Your task to perform on an android device: Add "razer deathadder" to the cart on newegg.com, then select checkout. Image 0: 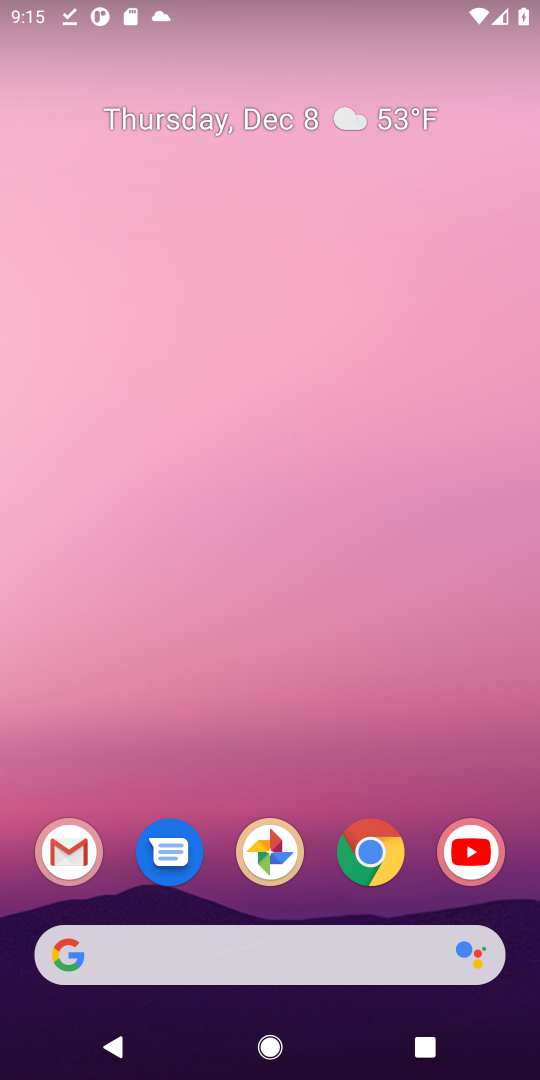
Step 0: click (272, 944)
Your task to perform on an android device: Add "razer deathadder" to the cart on newegg.com, then select checkout. Image 1: 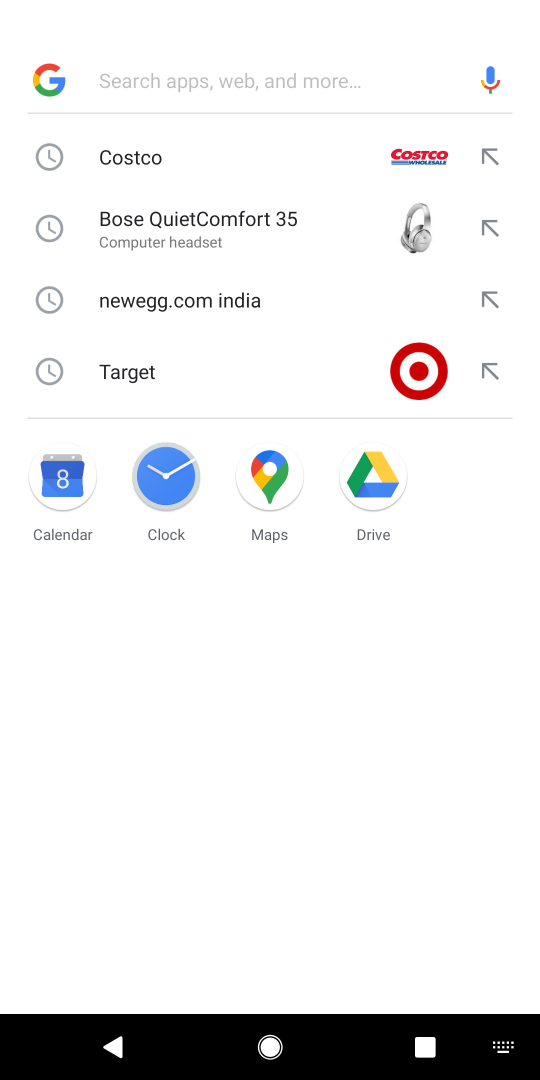
Step 1: type "razer daethadder"
Your task to perform on an android device: Add "razer deathadder" to the cart on newegg.com, then select checkout. Image 2: 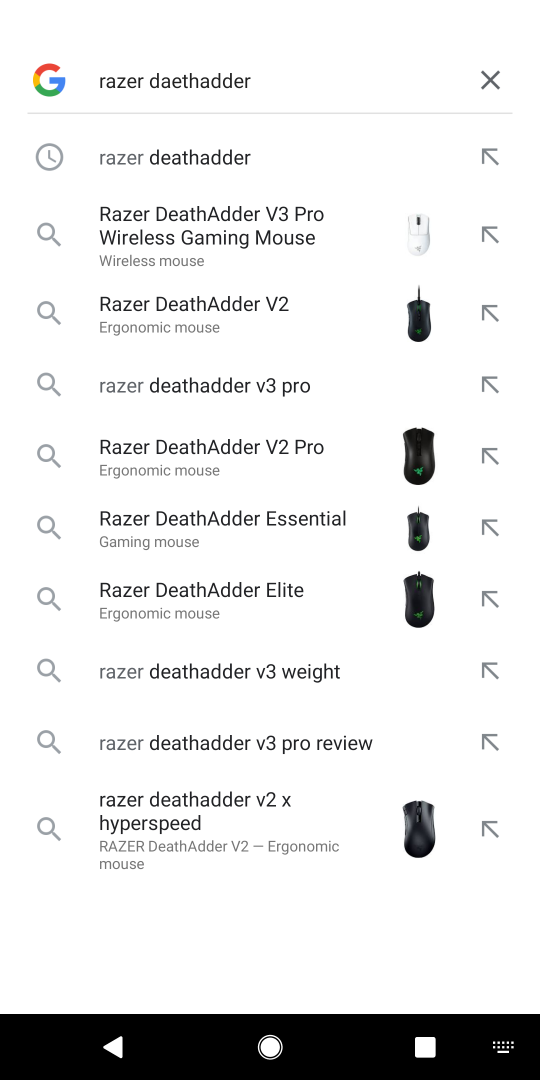
Step 2: click (174, 148)
Your task to perform on an android device: Add "razer deathadder" to the cart on newegg.com, then select checkout. Image 3: 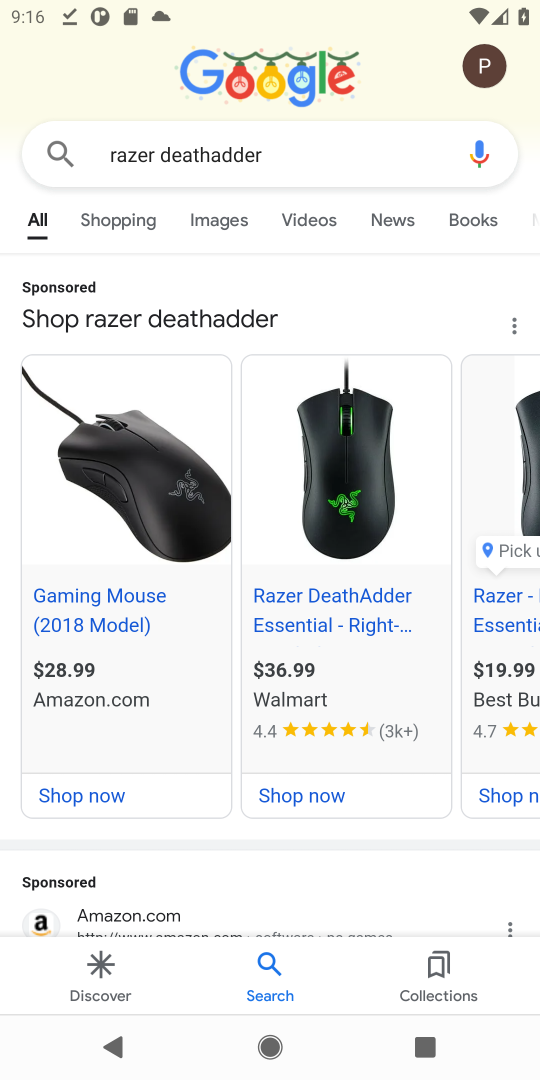
Step 3: task complete